Your task to perform on an android device: turn on bluetooth scan Image 0: 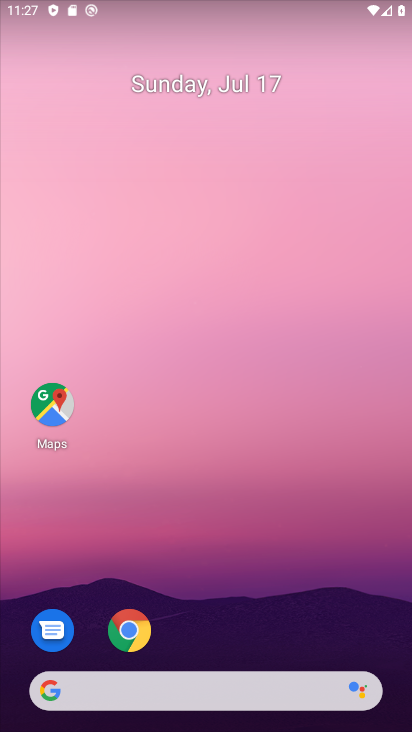
Step 0: drag from (215, 574) to (187, 127)
Your task to perform on an android device: turn on bluetooth scan Image 1: 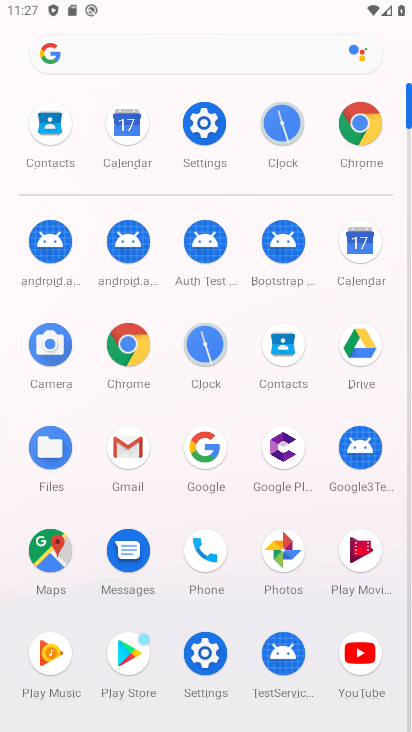
Step 1: click (204, 672)
Your task to perform on an android device: turn on bluetooth scan Image 2: 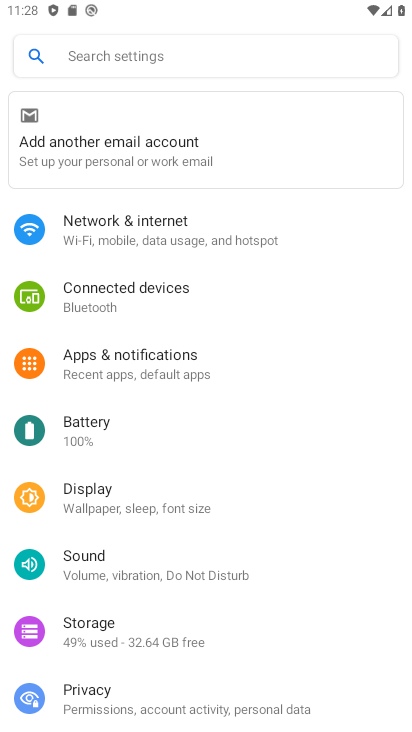
Step 2: drag from (109, 601) to (120, 518)
Your task to perform on an android device: turn on bluetooth scan Image 3: 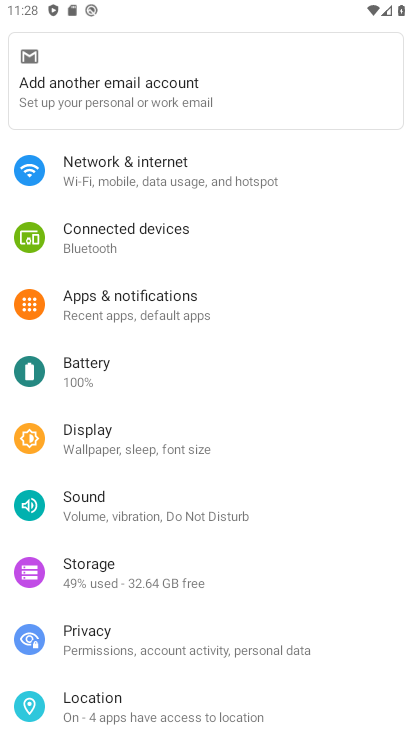
Step 3: click (92, 697)
Your task to perform on an android device: turn on bluetooth scan Image 4: 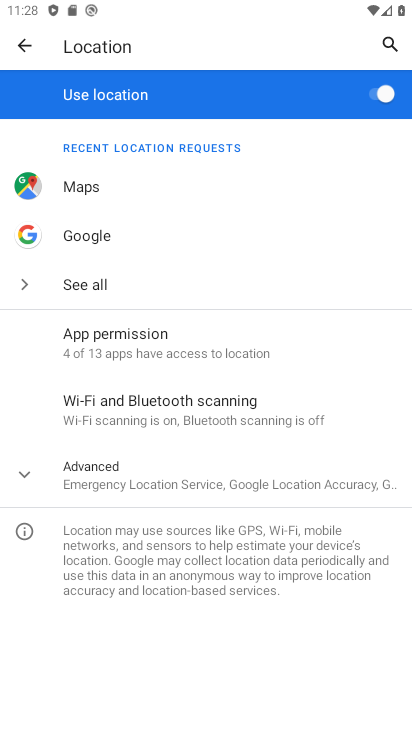
Step 4: click (212, 408)
Your task to perform on an android device: turn on bluetooth scan Image 5: 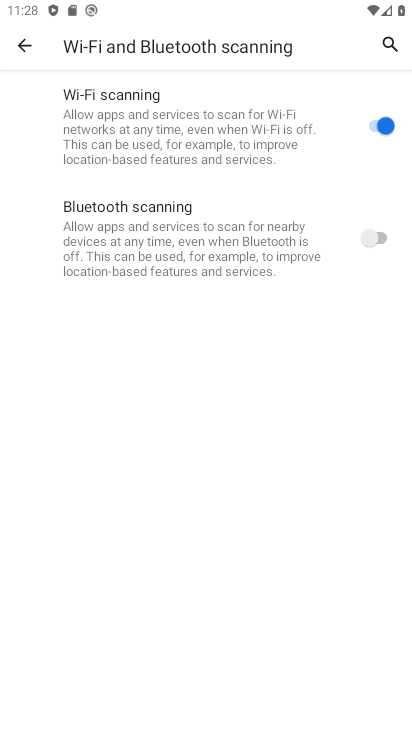
Step 5: click (340, 236)
Your task to perform on an android device: turn on bluetooth scan Image 6: 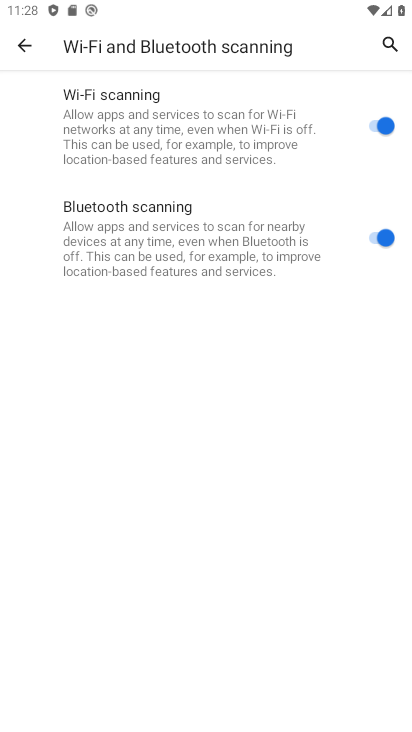
Step 6: task complete